Your task to perform on an android device: turn smart compose on in the gmail app Image 0: 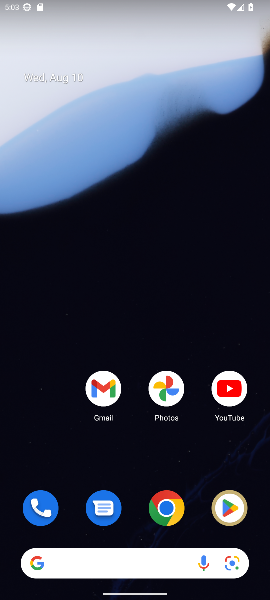
Step 0: press home button
Your task to perform on an android device: turn smart compose on in the gmail app Image 1: 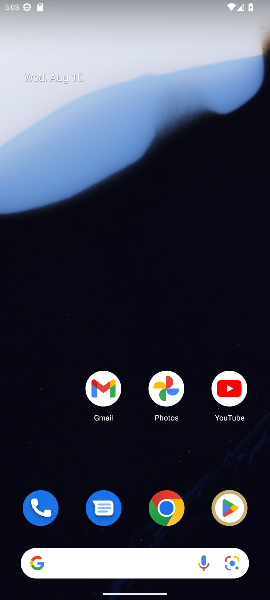
Step 1: click (102, 389)
Your task to perform on an android device: turn smart compose on in the gmail app Image 2: 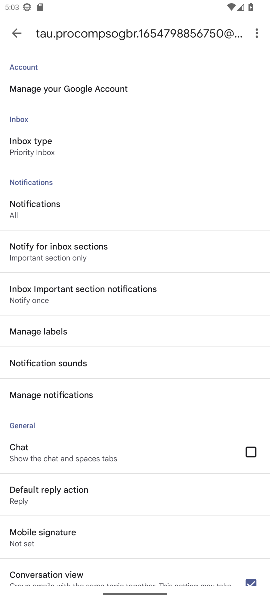
Step 2: task complete